Your task to perform on an android device: Open the Play Movies app and select the watchlist tab. Image 0: 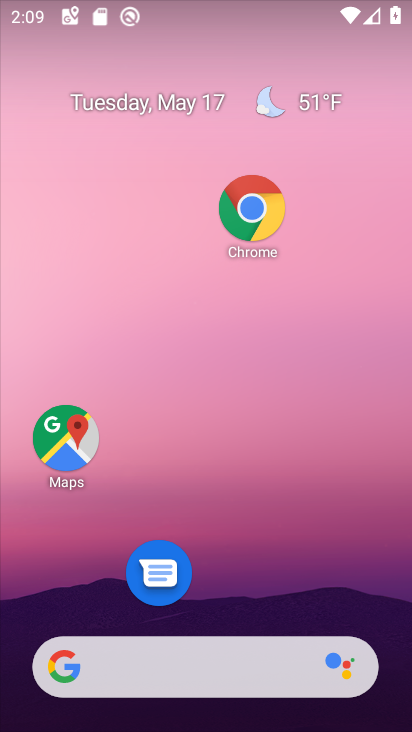
Step 0: drag from (220, 610) to (199, 119)
Your task to perform on an android device: Open the Play Movies app and select the watchlist tab. Image 1: 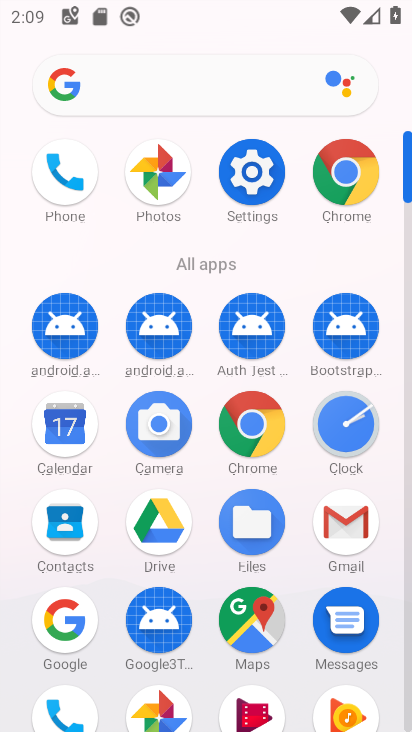
Step 1: click (253, 694)
Your task to perform on an android device: Open the Play Movies app and select the watchlist tab. Image 2: 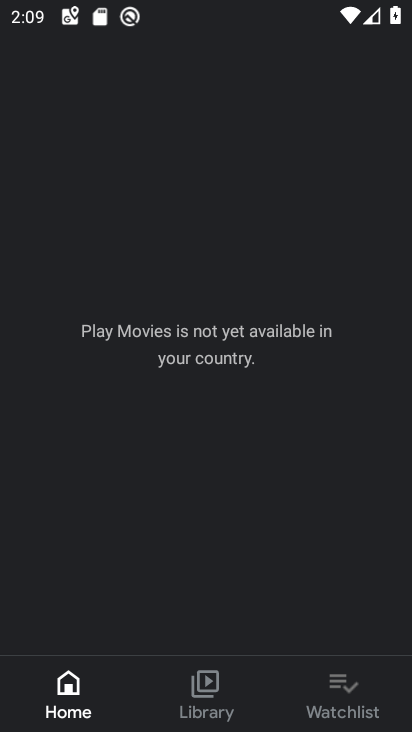
Step 2: click (338, 682)
Your task to perform on an android device: Open the Play Movies app and select the watchlist tab. Image 3: 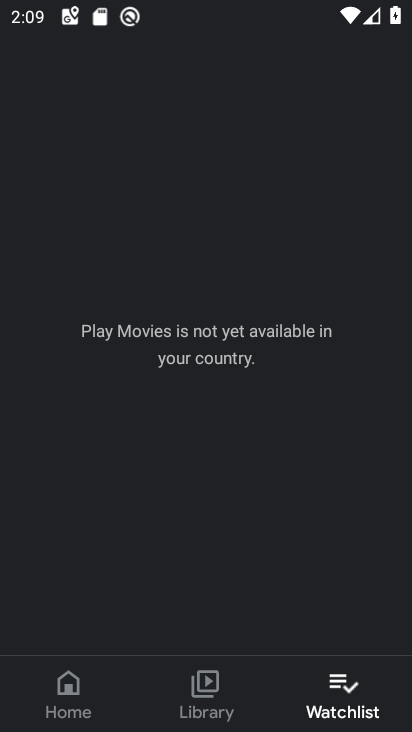
Step 3: task complete